Your task to perform on an android device: Open Google Maps and go to "Timeline" Image 0: 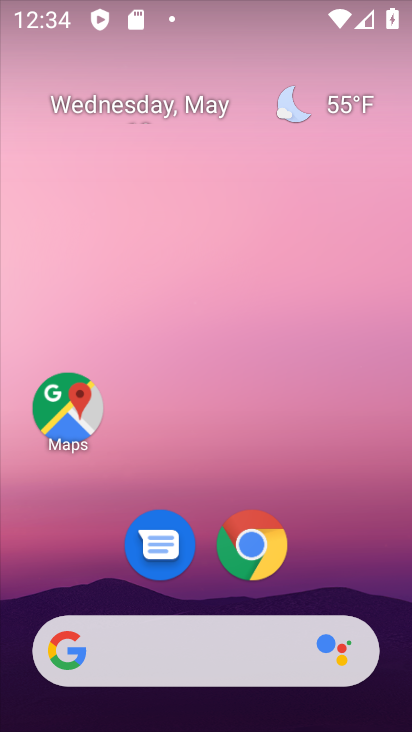
Step 0: drag from (363, 602) to (281, 346)
Your task to perform on an android device: Open Google Maps and go to "Timeline" Image 1: 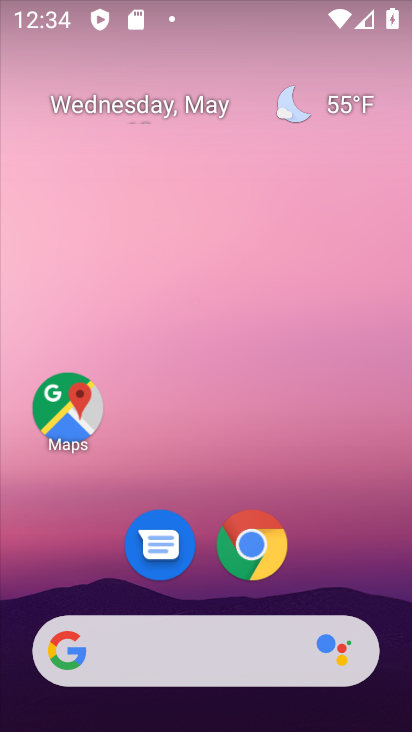
Step 1: click (74, 396)
Your task to perform on an android device: Open Google Maps and go to "Timeline" Image 2: 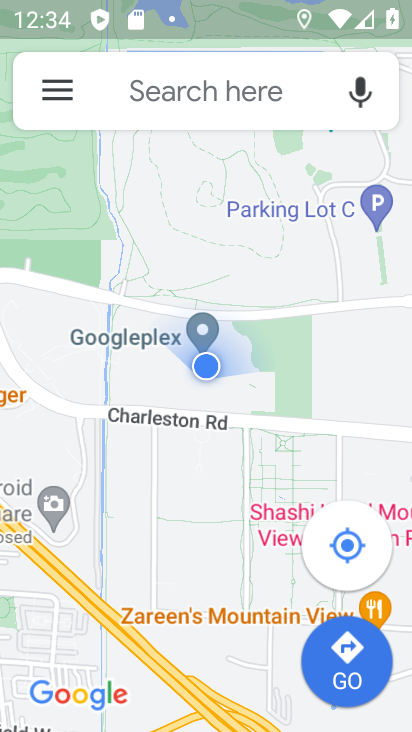
Step 2: click (65, 104)
Your task to perform on an android device: Open Google Maps and go to "Timeline" Image 3: 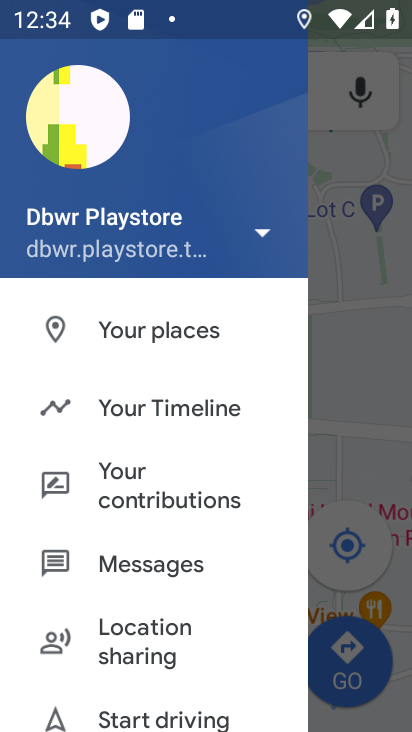
Step 3: click (113, 405)
Your task to perform on an android device: Open Google Maps and go to "Timeline" Image 4: 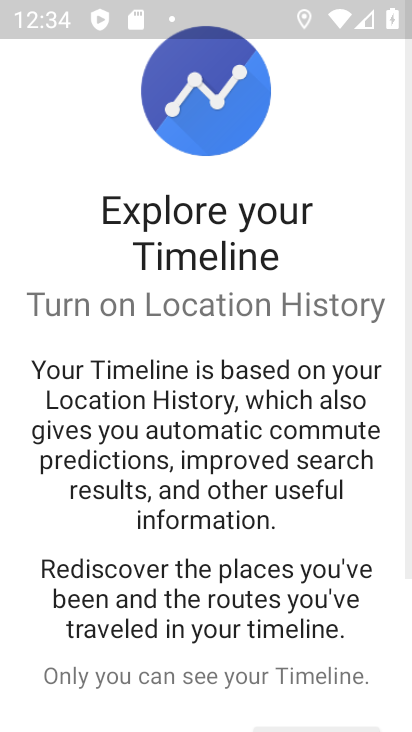
Step 4: drag from (261, 579) to (200, 239)
Your task to perform on an android device: Open Google Maps and go to "Timeline" Image 5: 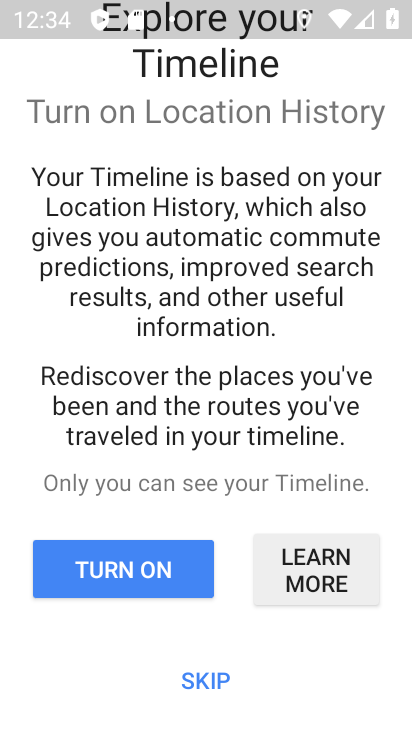
Step 5: click (210, 677)
Your task to perform on an android device: Open Google Maps and go to "Timeline" Image 6: 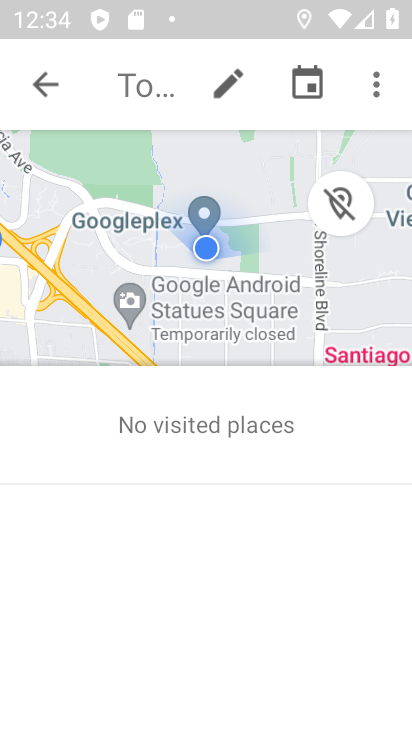
Step 6: task complete